Your task to perform on an android device: see tabs open on other devices in the chrome app Image 0: 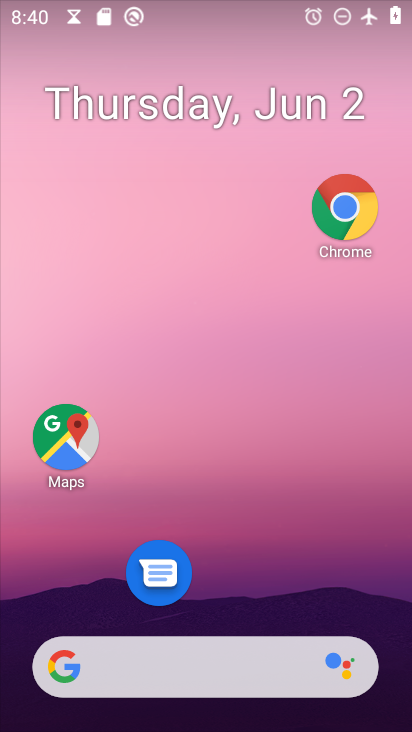
Step 0: press home button
Your task to perform on an android device: see tabs open on other devices in the chrome app Image 1: 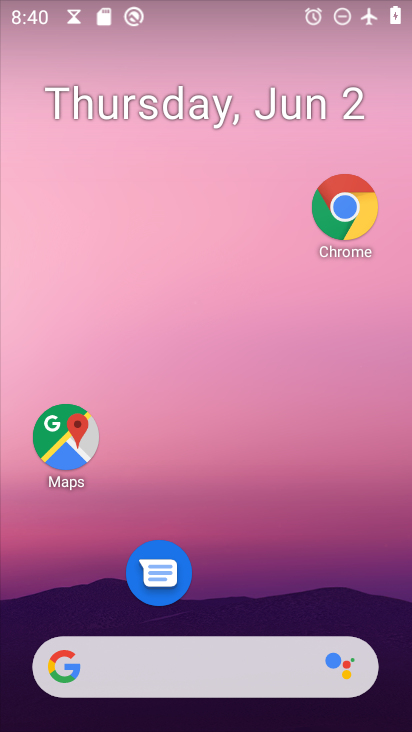
Step 1: click (347, 223)
Your task to perform on an android device: see tabs open on other devices in the chrome app Image 2: 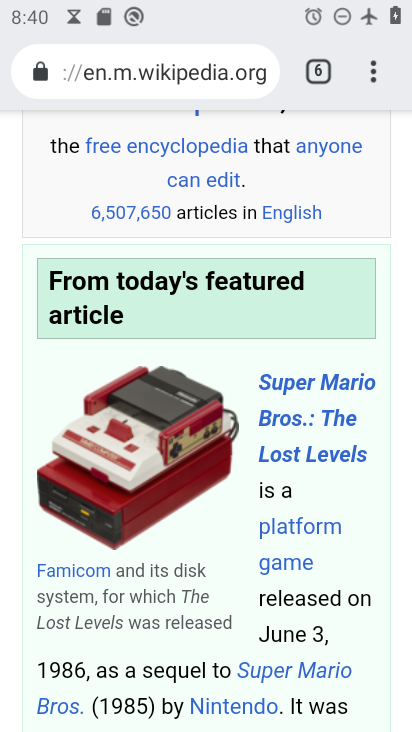
Step 2: task complete